Your task to perform on an android device: turn off notifications settings in the gmail app Image 0: 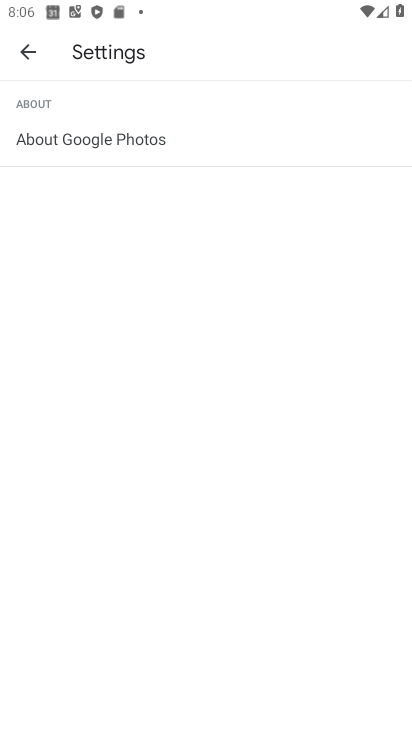
Step 0: press home button
Your task to perform on an android device: turn off notifications settings in the gmail app Image 1: 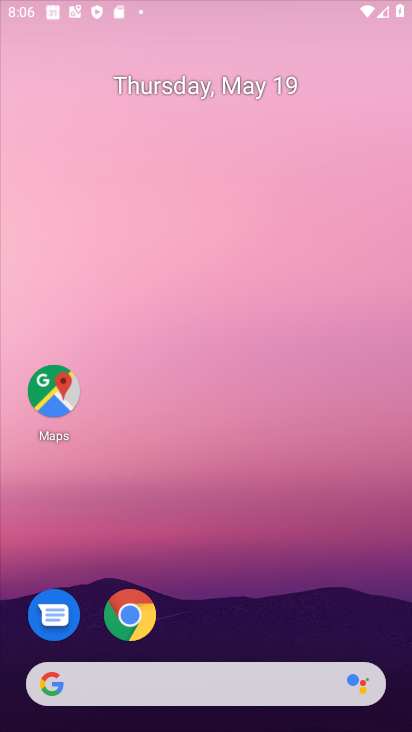
Step 1: drag from (219, 690) to (263, 159)
Your task to perform on an android device: turn off notifications settings in the gmail app Image 2: 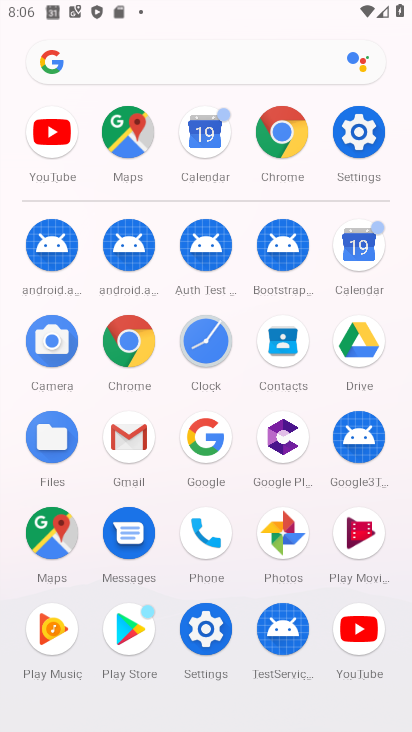
Step 2: click (134, 438)
Your task to perform on an android device: turn off notifications settings in the gmail app Image 3: 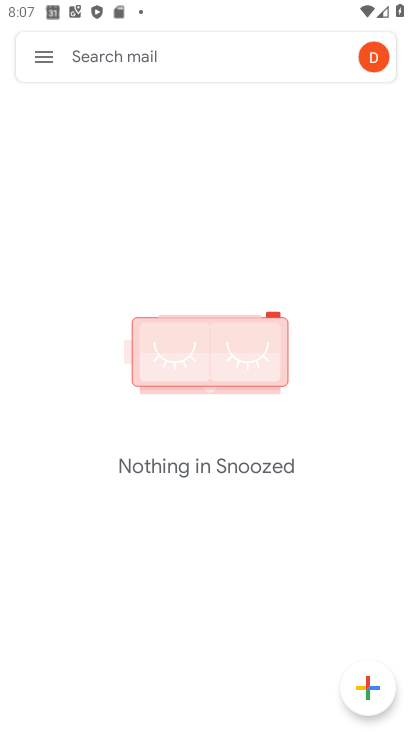
Step 3: click (44, 53)
Your task to perform on an android device: turn off notifications settings in the gmail app Image 4: 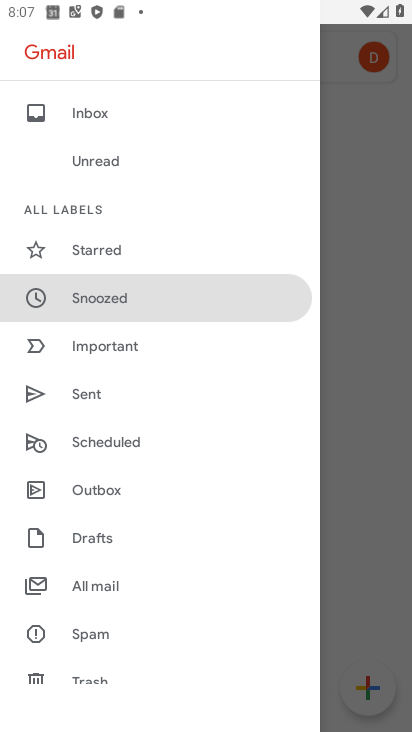
Step 4: drag from (136, 523) to (204, 132)
Your task to perform on an android device: turn off notifications settings in the gmail app Image 5: 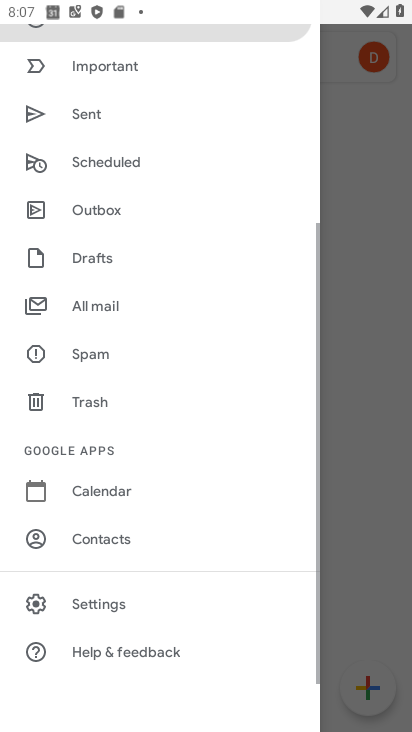
Step 5: click (145, 600)
Your task to perform on an android device: turn off notifications settings in the gmail app Image 6: 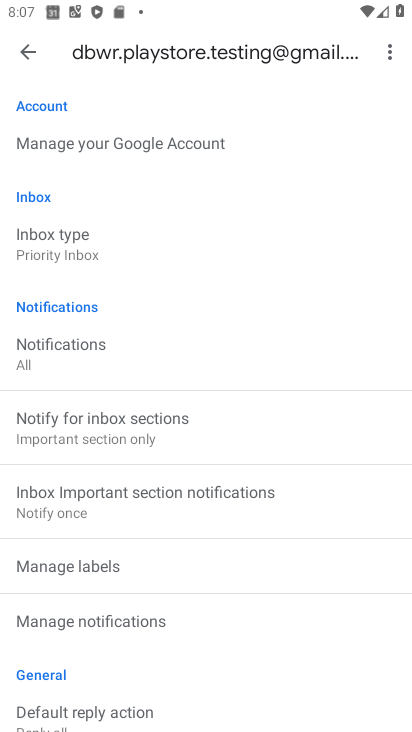
Step 6: click (35, 51)
Your task to perform on an android device: turn off notifications settings in the gmail app Image 7: 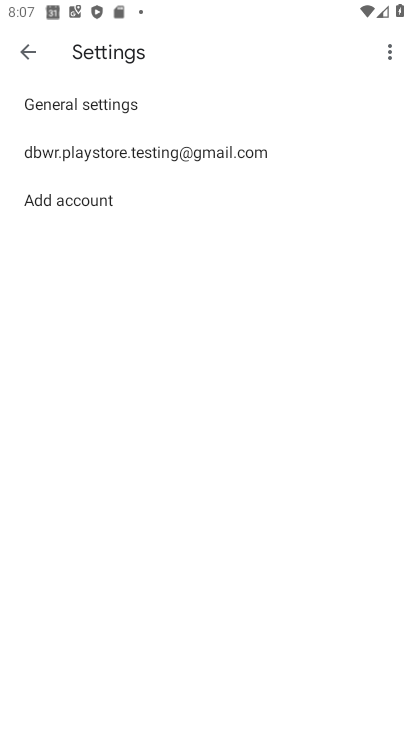
Step 7: click (91, 102)
Your task to perform on an android device: turn off notifications settings in the gmail app Image 8: 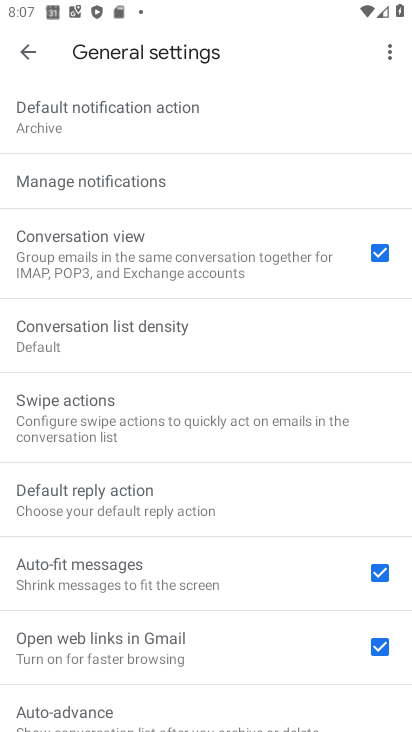
Step 8: click (165, 180)
Your task to perform on an android device: turn off notifications settings in the gmail app Image 9: 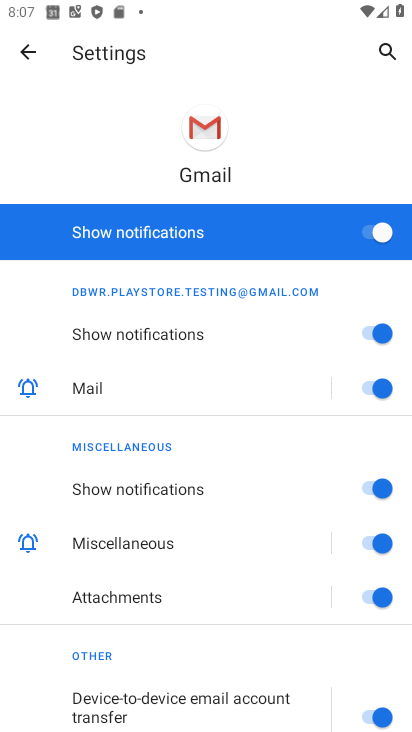
Step 9: click (372, 228)
Your task to perform on an android device: turn off notifications settings in the gmail app Image 10: 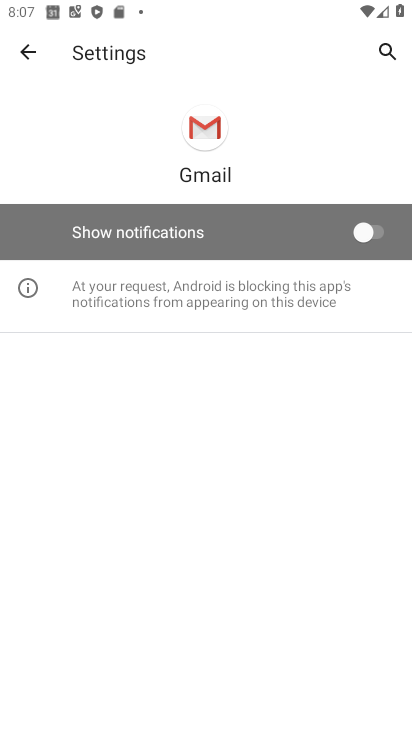
Step 10: task complete